Your task to perform on an android device: Search for Italian restaurants on Maps Image 0: 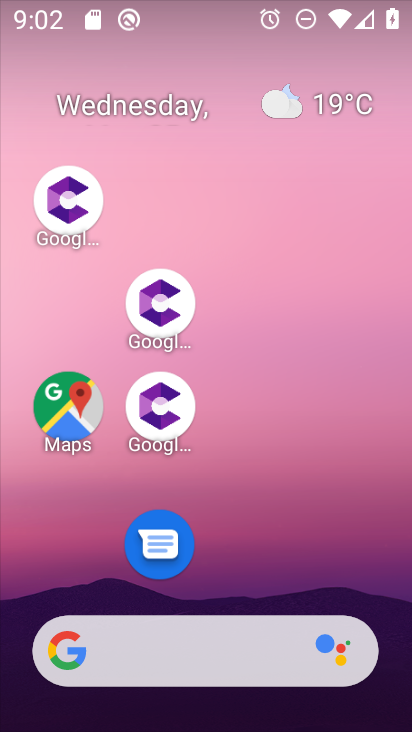
Step 0: click (70, 408)
Your task to perform on an android device: Search for Italian restaurants on Maps Image 1: 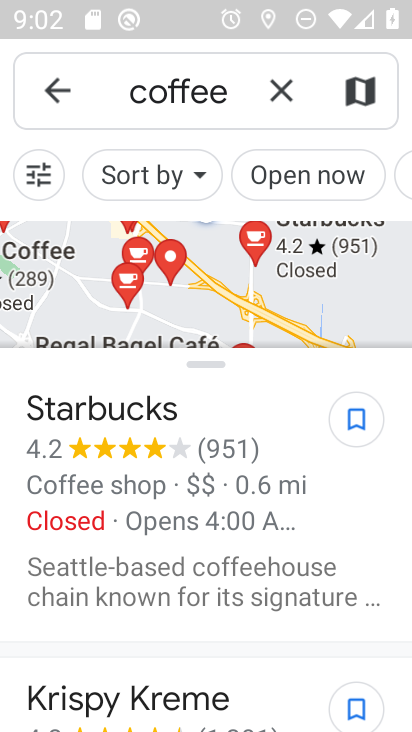
Step 1: click (279, 80)
Your task to perform on an android device: Search for Italian restaurants on Maps Image 2: 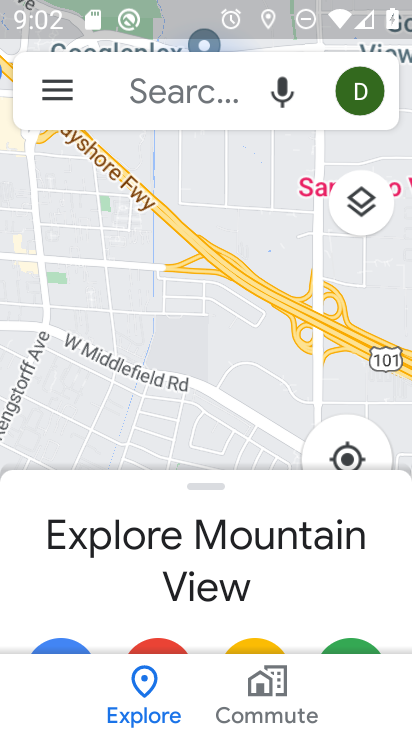
Step 2: click (181, 95)
Your task to perform on an android device: Search for Italian restaurants on Maps Image 3: 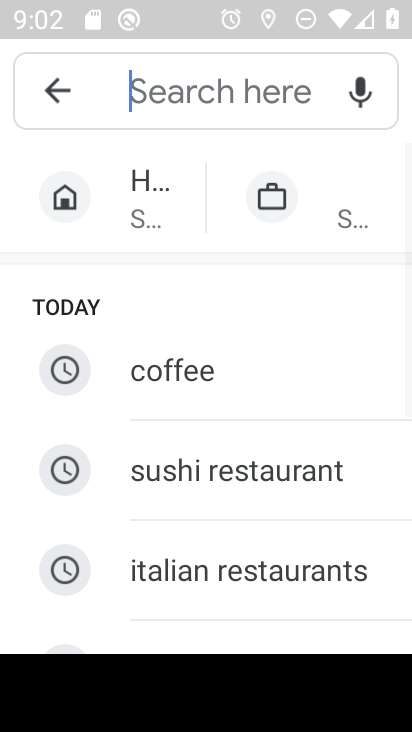
Step 3: click (259, 569)
Your task to perform on an android device: Search for Italian restaurants on Maps Image 4: 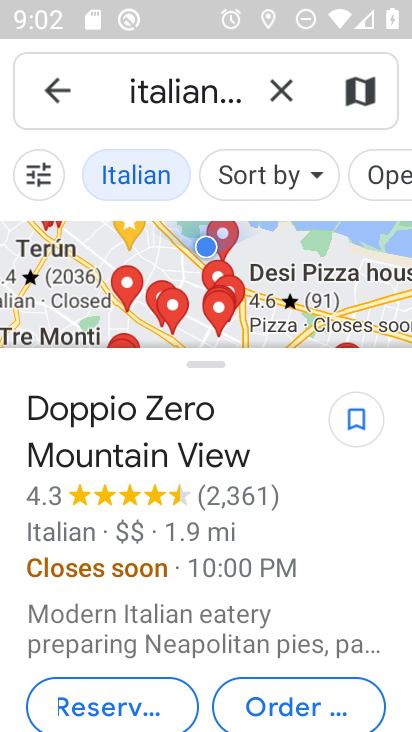
Step 4: task complete